Your task to perform on an android device: open app "WhatsApp Messenger" (install if not already installed) Image 0: 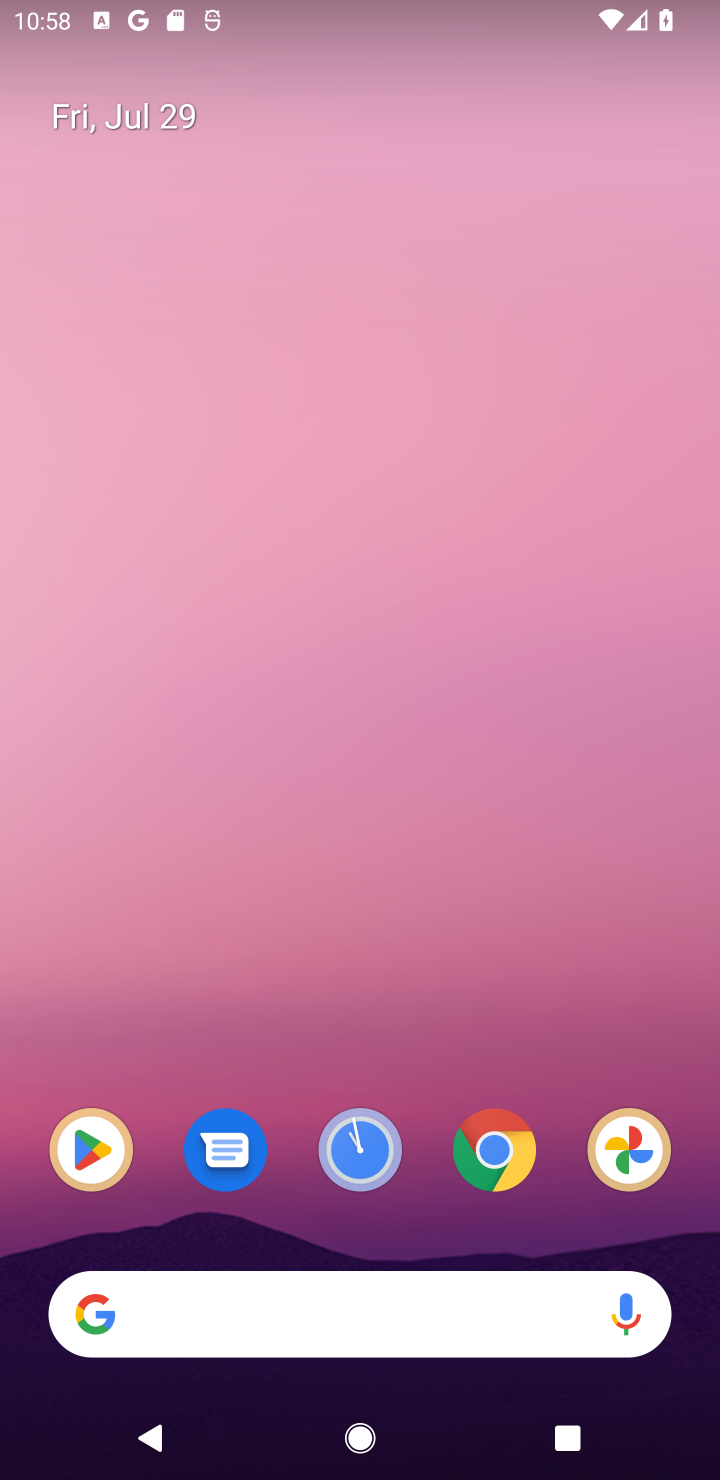
Step 0: click (79, 1145)
Your task to perform on an android device: open app "WhatsApp Messenger" (install if not already installed) Image 1: 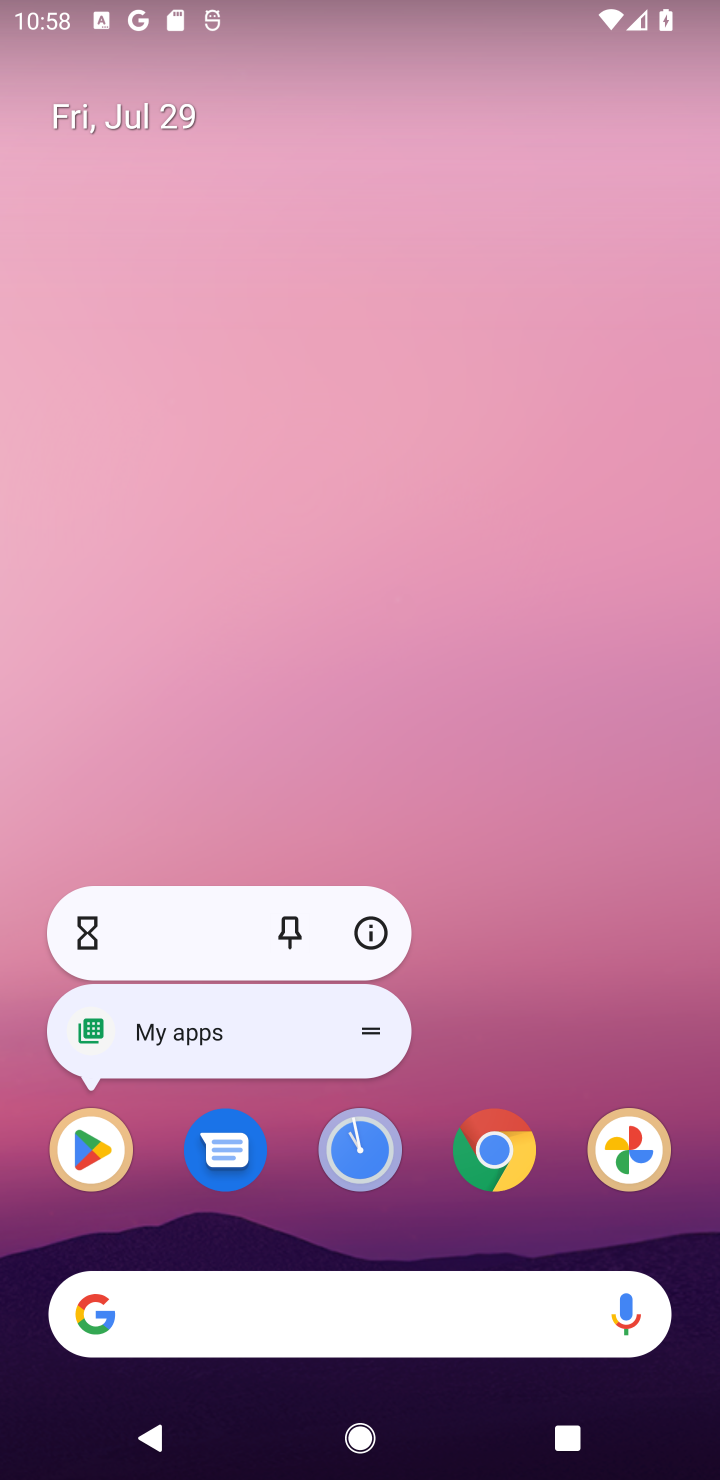
Step 1: click (97, 1148)
Your task to perform on an android device: open app "WhatsApp Messenger" (install if not already installed) Image 2: 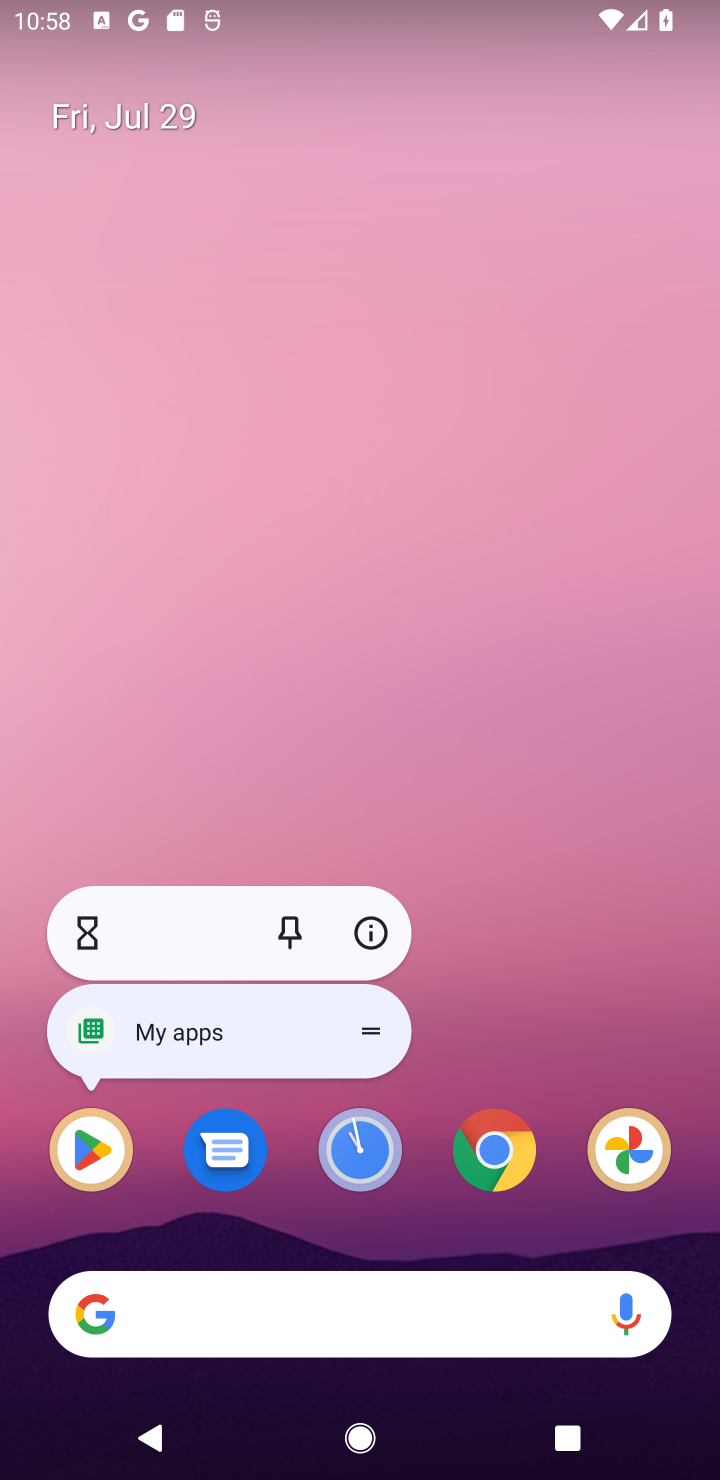
Step 2: click (90, 1155)
Your task to perform on an android device: open app "WhatsApp Messenger" (install if not already installed) Image 3: 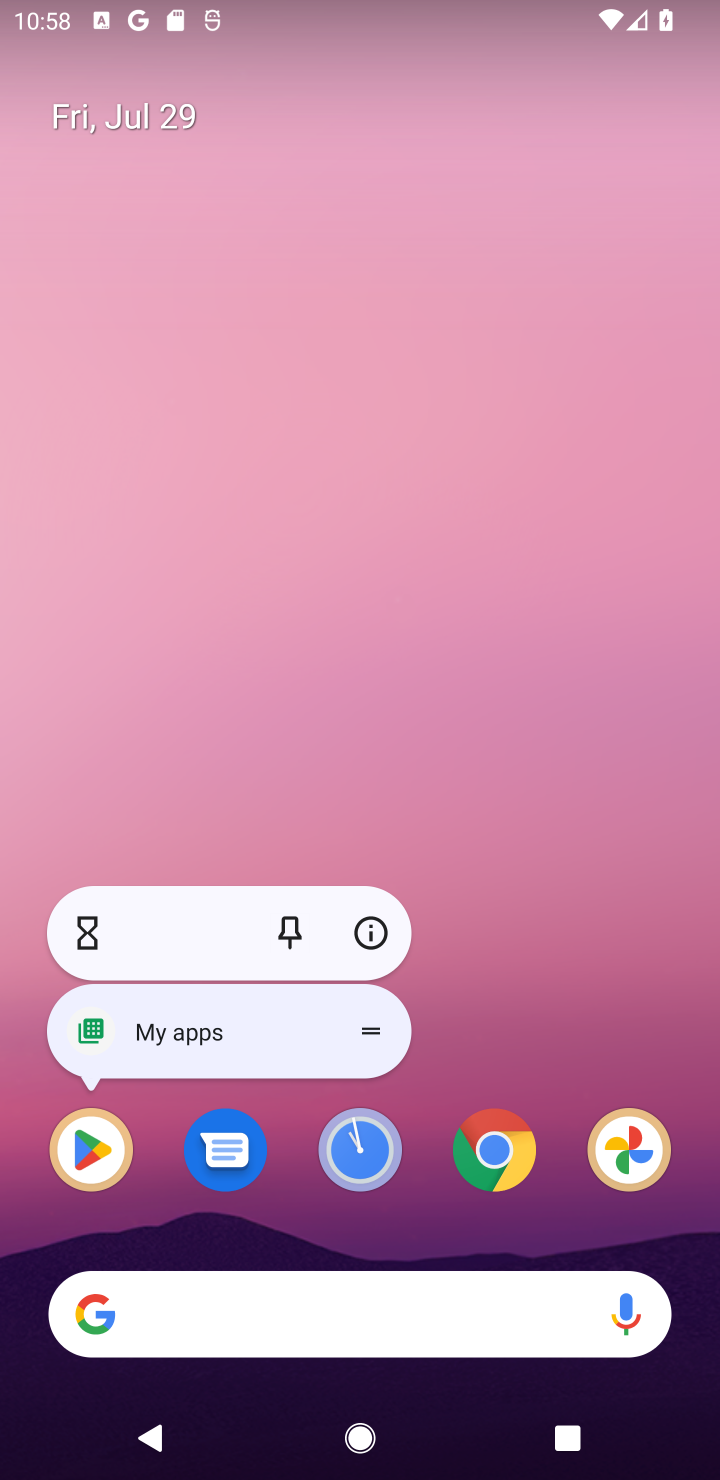
Step 3: click (94, 1157)
Your task to perform on an android device: open app "WhatsApp Messenger" (install if not already installed) Image 4: 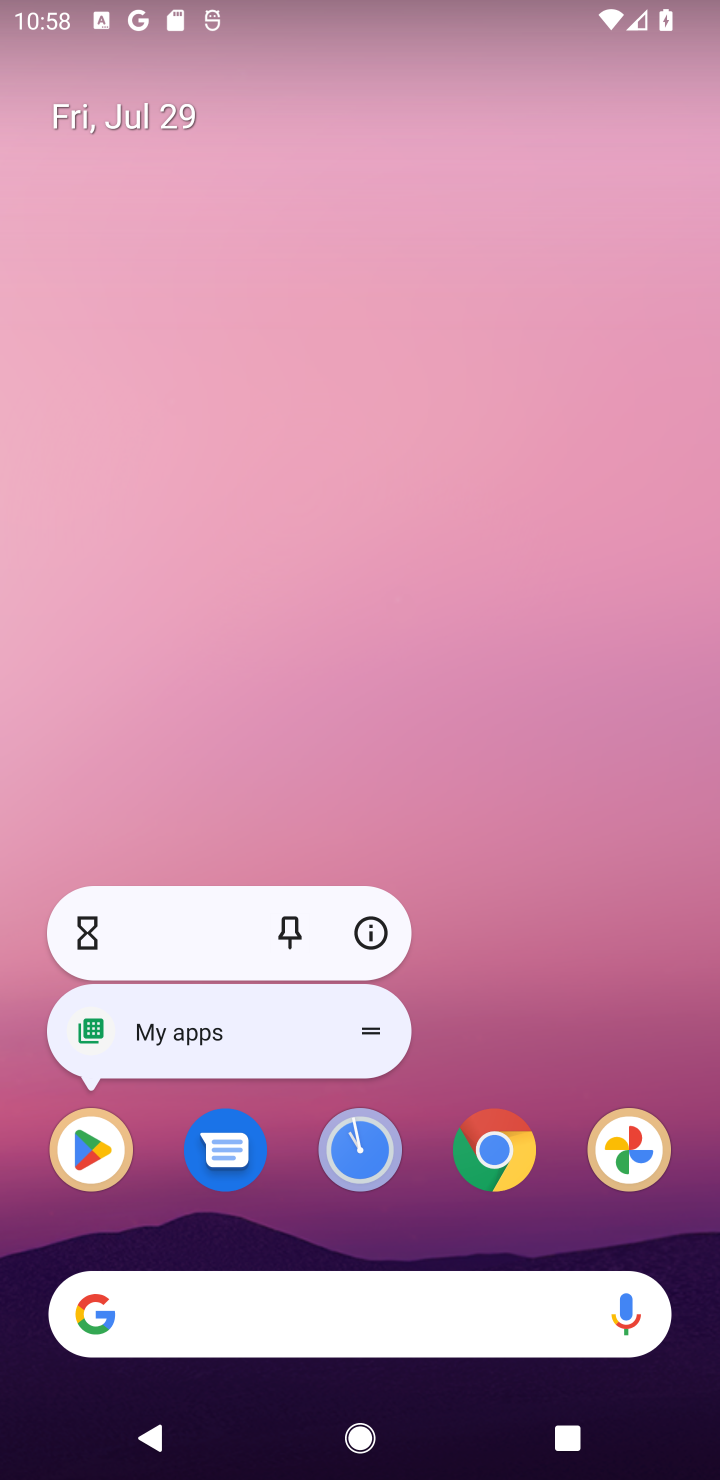
Step 4: click (86, 1130)
Your task to perform on an android device: open app "WhatsApp Messenger" (install if not already installed) Image 5: 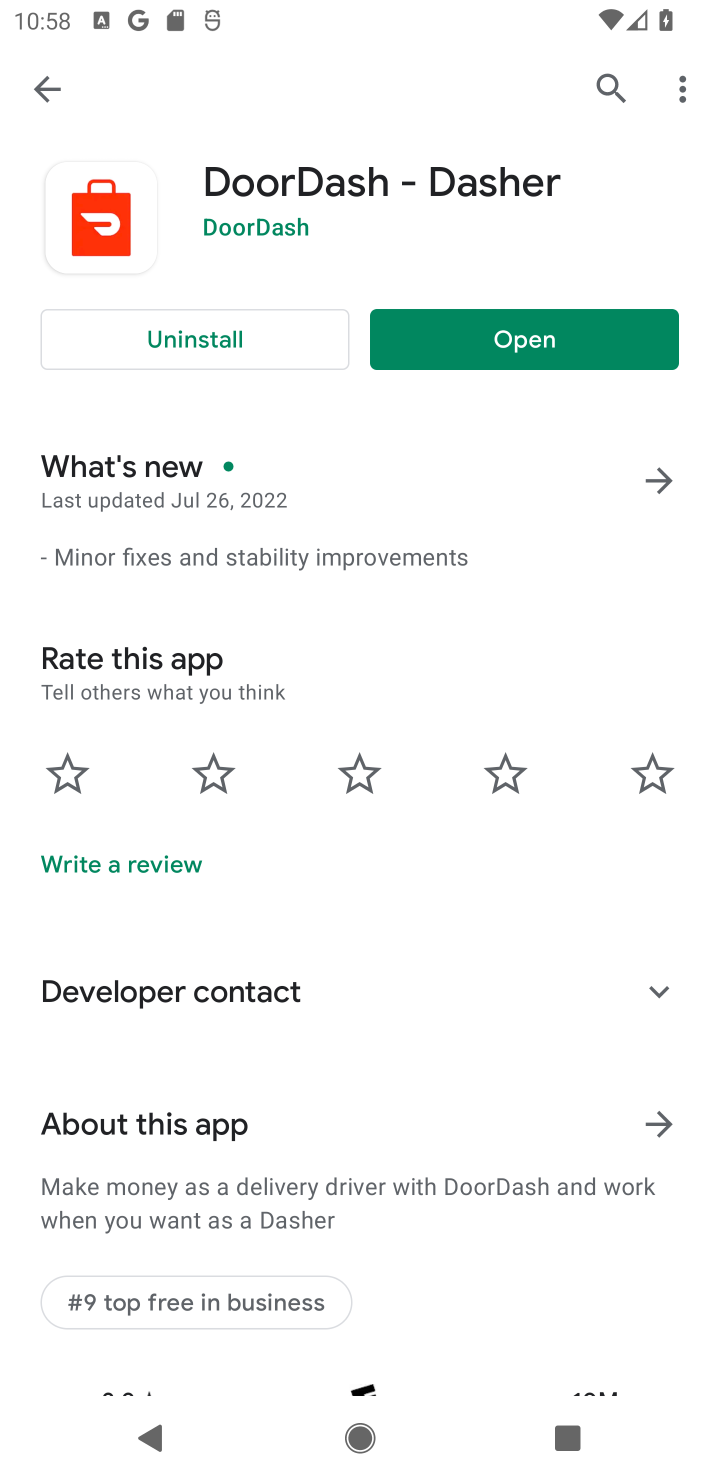
Step 5: click (604, 78)
Your task to perform on an android device: open app "WhatsApp Messenger" (install if not already installed) Image 6: 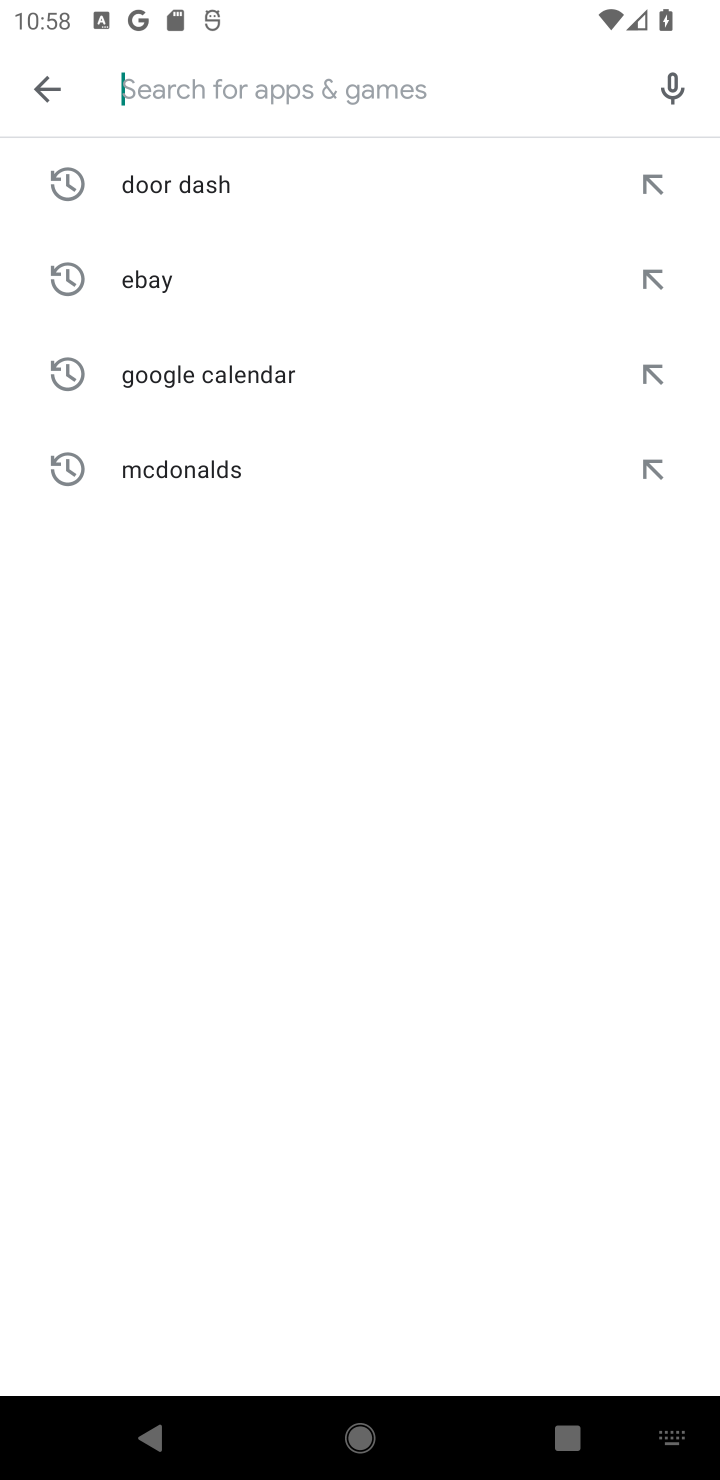
Step 6: click (340, 94)
Your task to perform on an android device: open app "WhatsApp Messenger" (install if not already installed) Image 7: 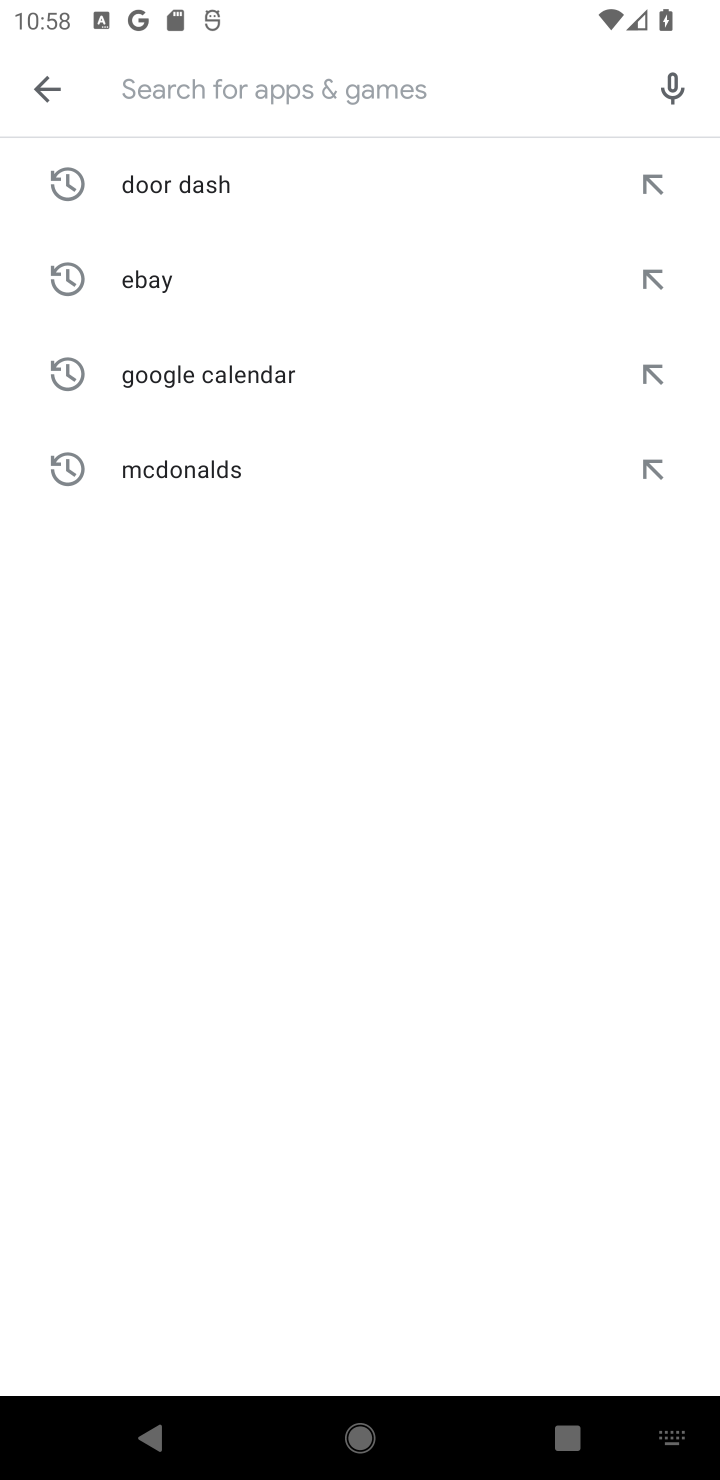
Step 7: type "whatsapp messenger"
Your task to perform on an android device: open app "WhatsApp Messenger" (install if not already installed) Image 8: 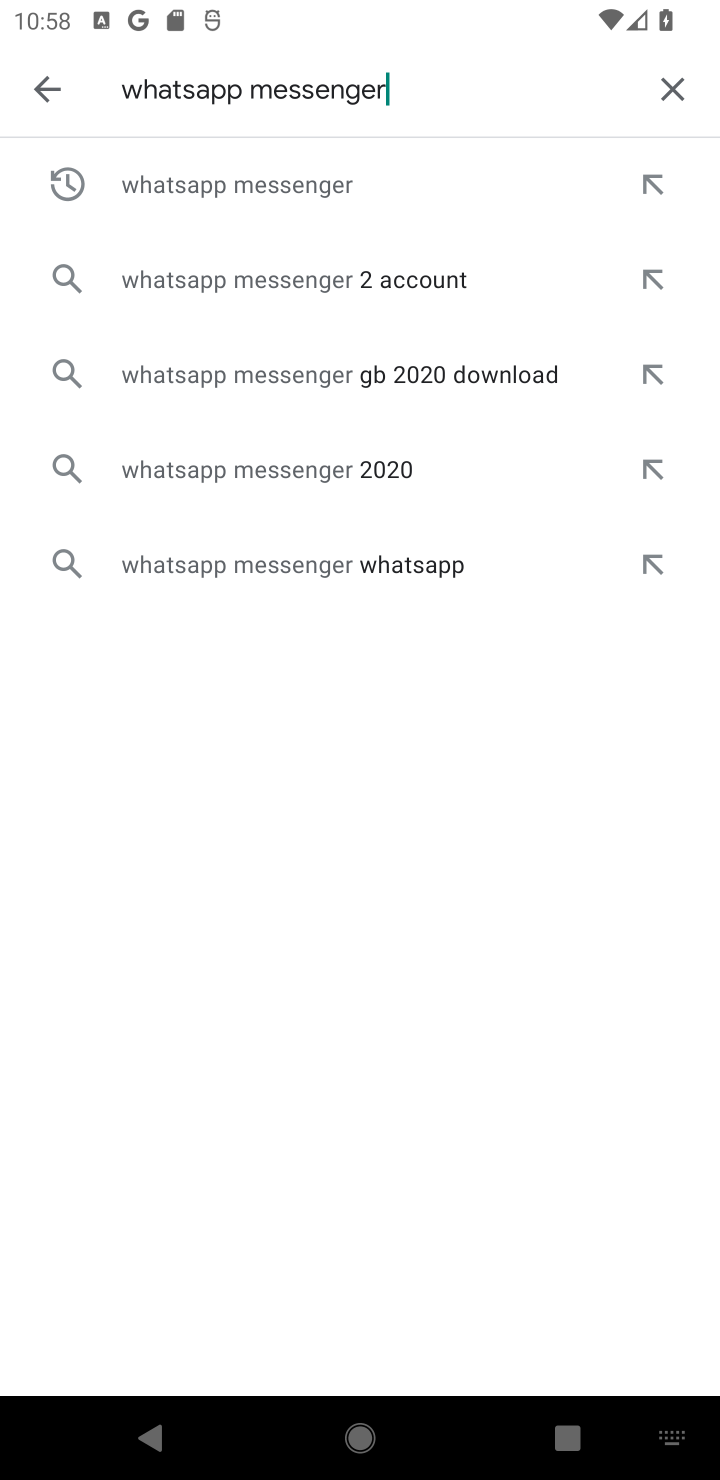
Step 8: click (382, 204)
Your task to perform on an android device: open app "WhatsApp Messenger" (install if not already installed) Image 9: 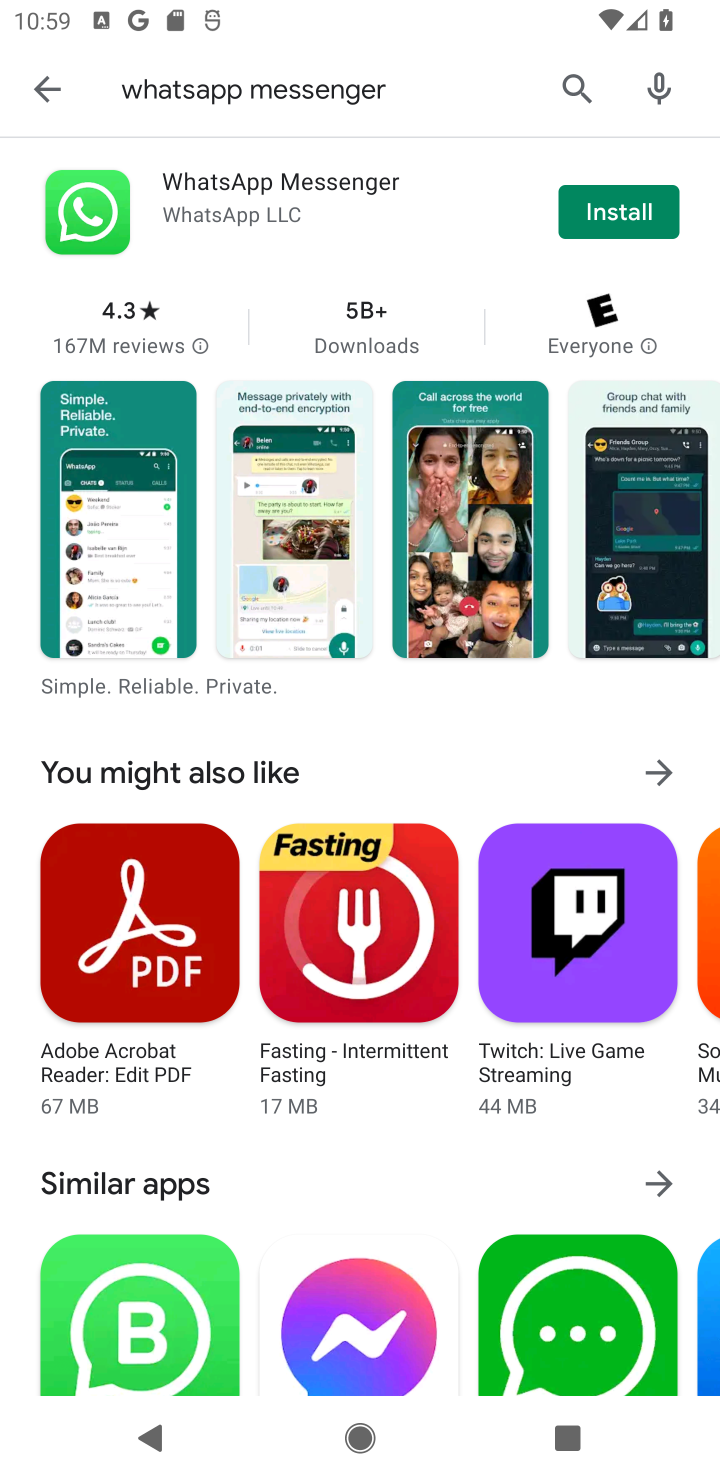
Step 9: click (622, 208)
Your task to perform on an android device: open app "WhatsApp Messenger" (install if not already installed) Image 10: 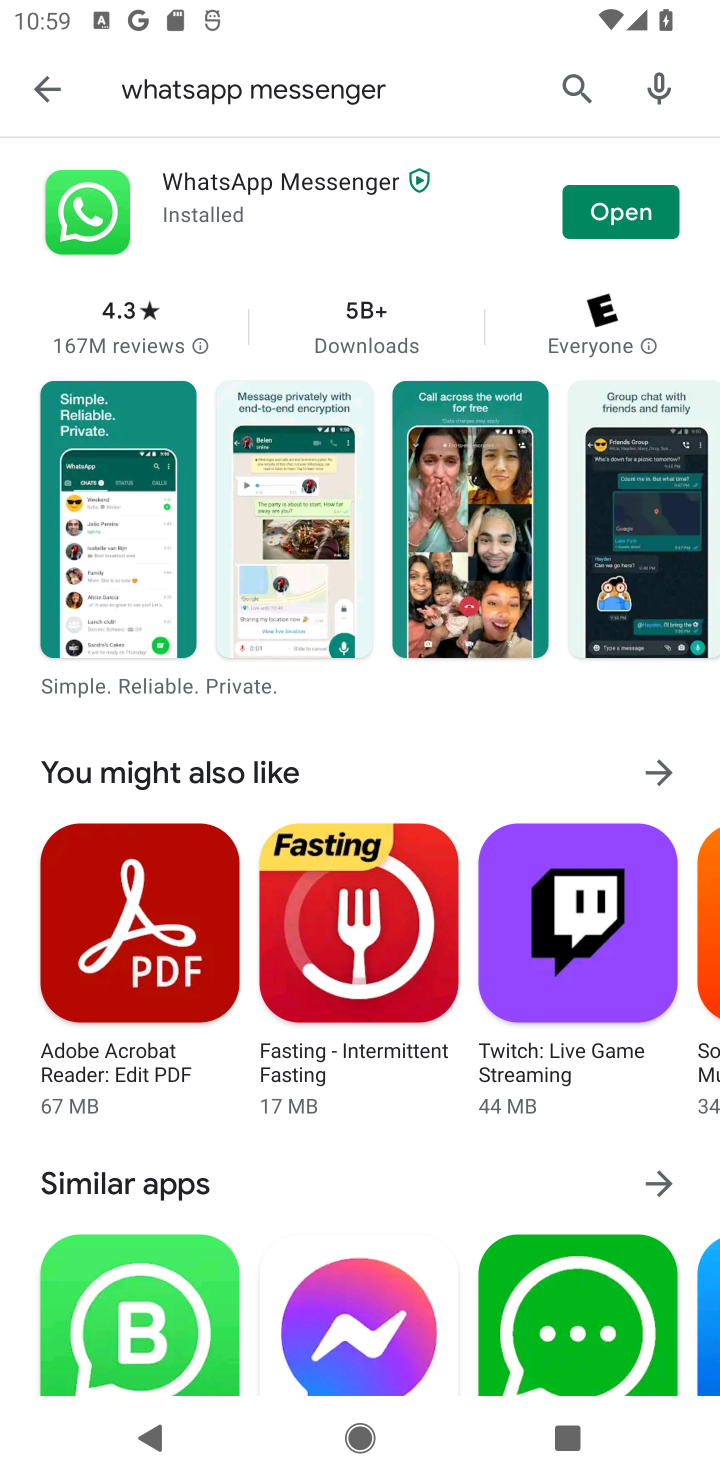
Step 10: click (632, 205)
Your task to perform on an android device: open app "WhatsApp Messenger" (install if not already installed) Image 11: 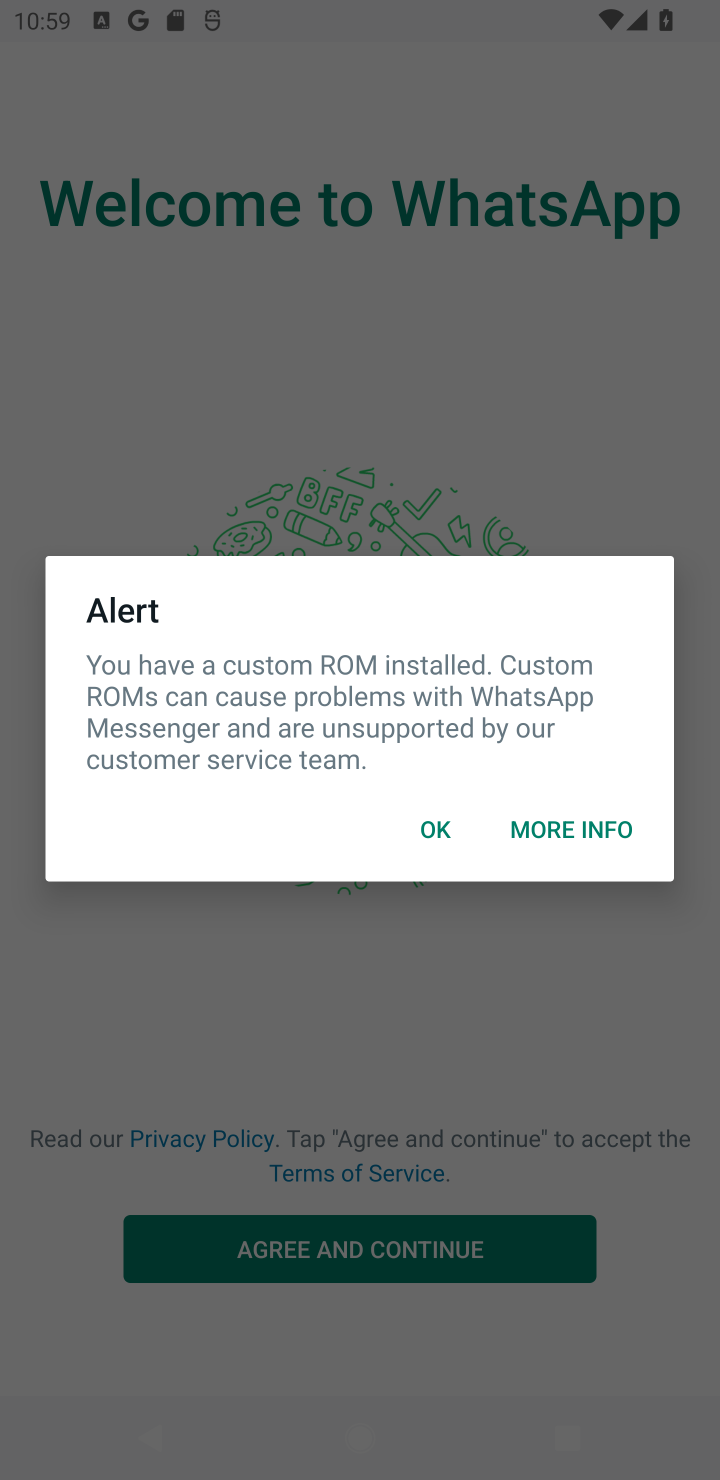
Step 11: task complete